Your task to perform on an android device: make emails show in primary in the gmail app Image 0: 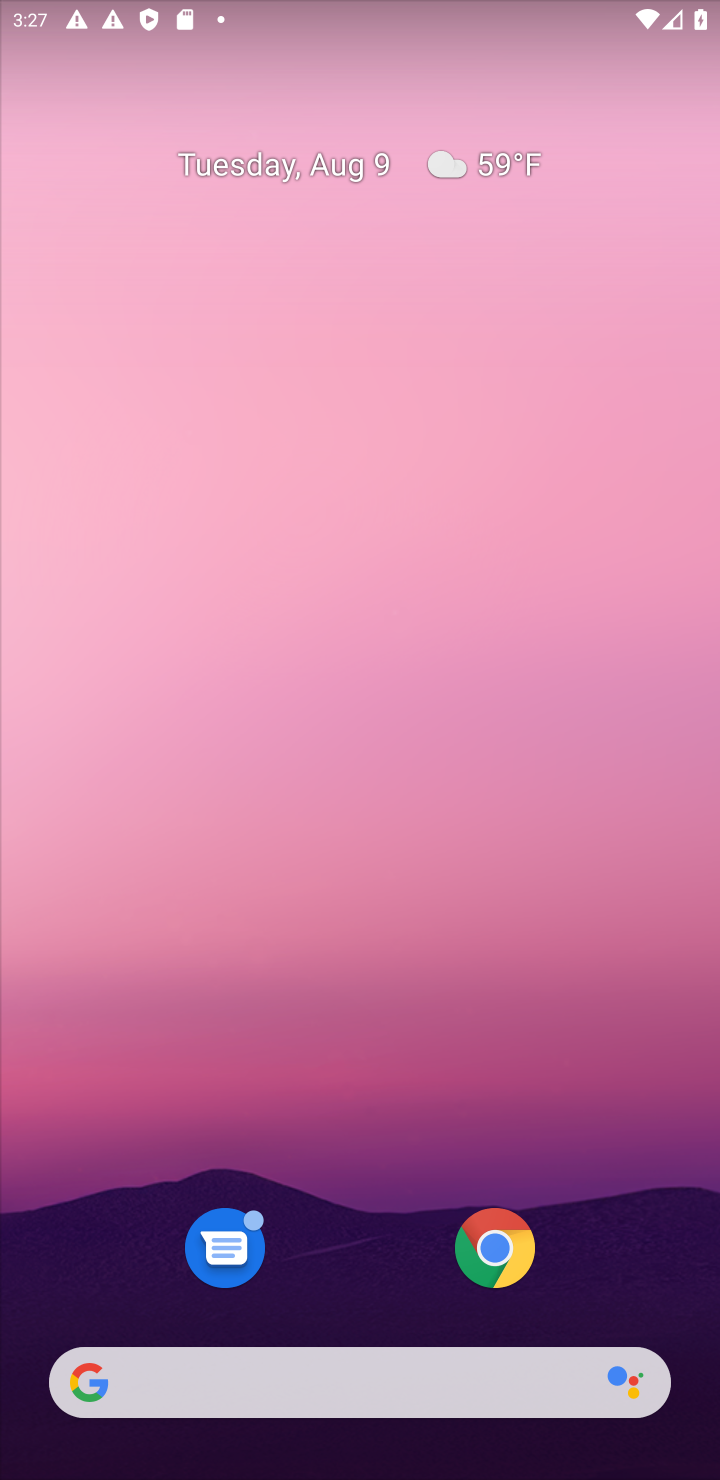
Step 0: press home button
Your task to perform on an android device: make emails show in primary in the gmail app Image 1: 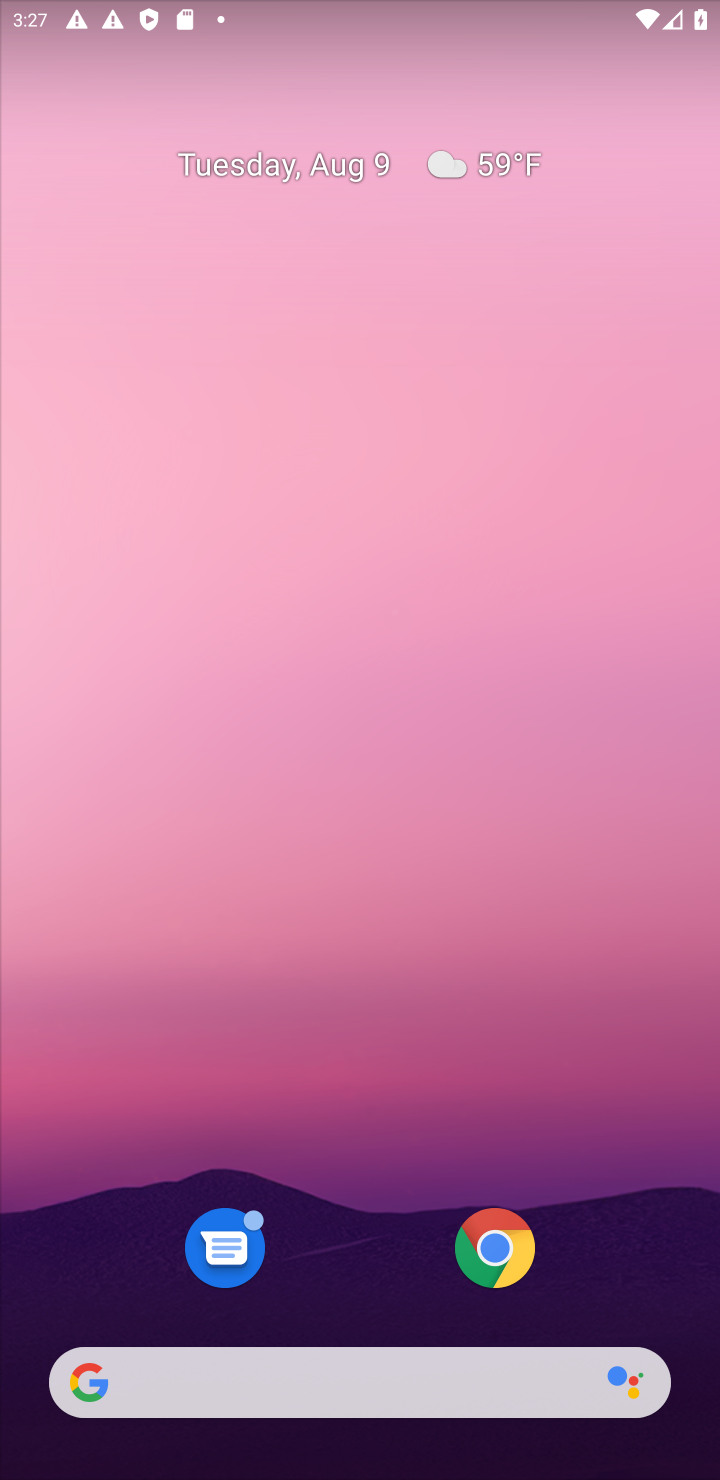
Step 1: drag from (368, 1184) to (209, 399)
Your task to perform on an android device: make emails show in primary in the gmail app Image 2: 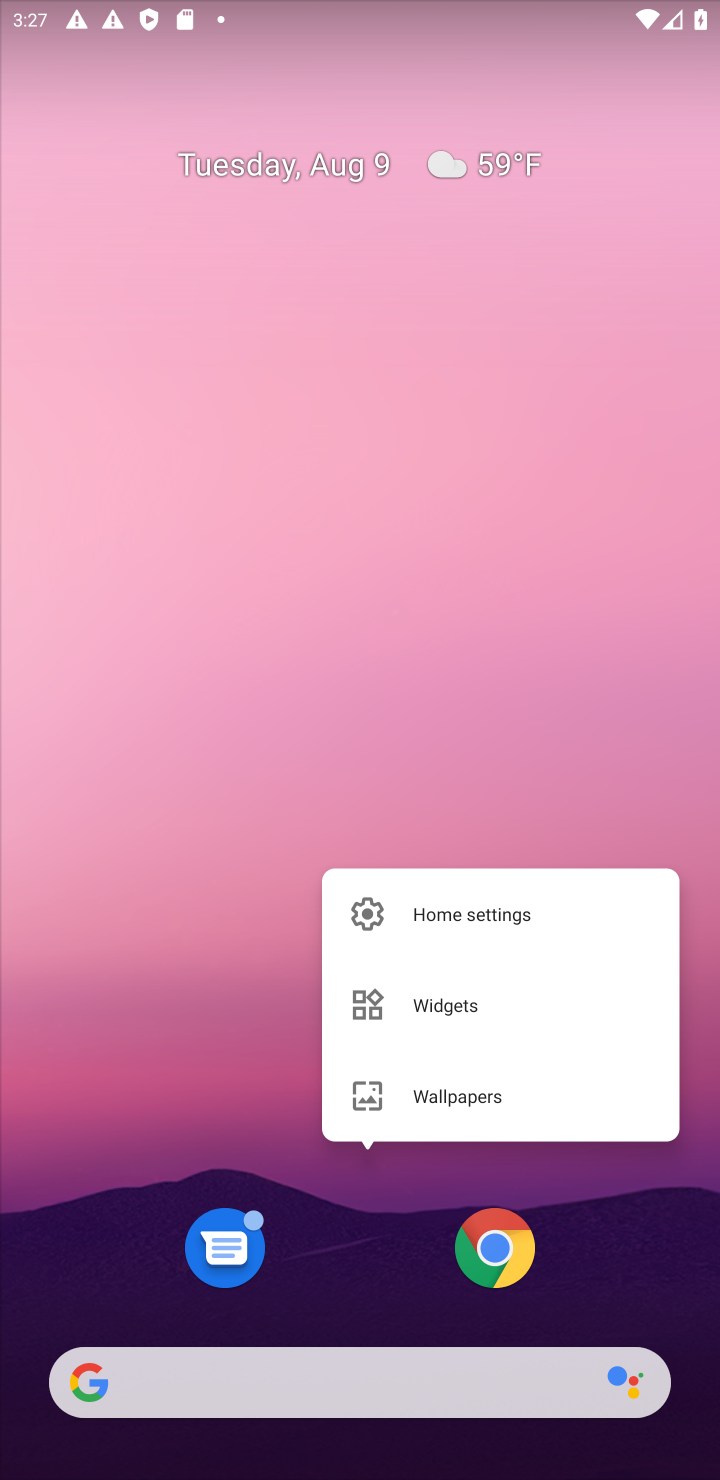
Step 2: click (306, 784)
Your task to perform on an android device: make emails show in primary in the gmail app Image 3: 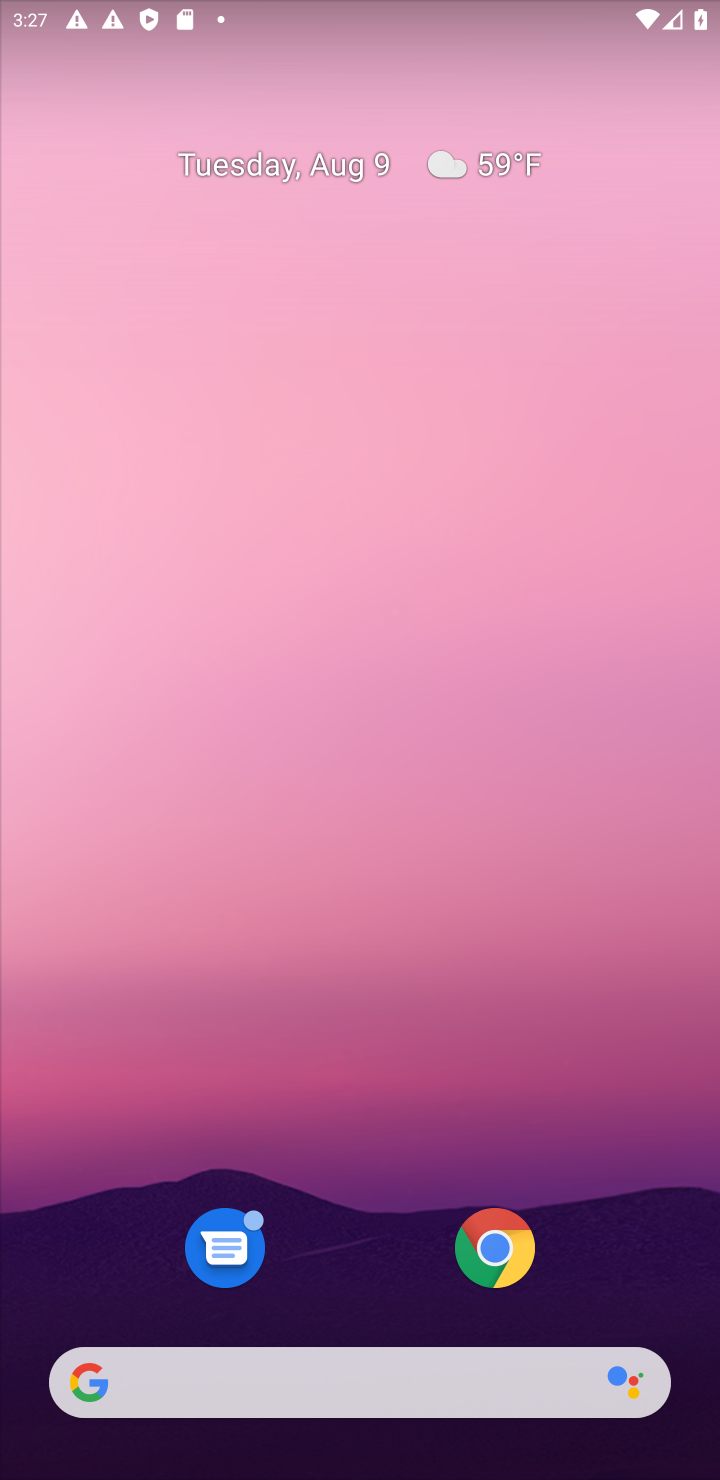
Step 3: drag from (319, 1098) to (155, 162)
Your task to perform on an android device: make emails show in primary in the gmail app Image 4: 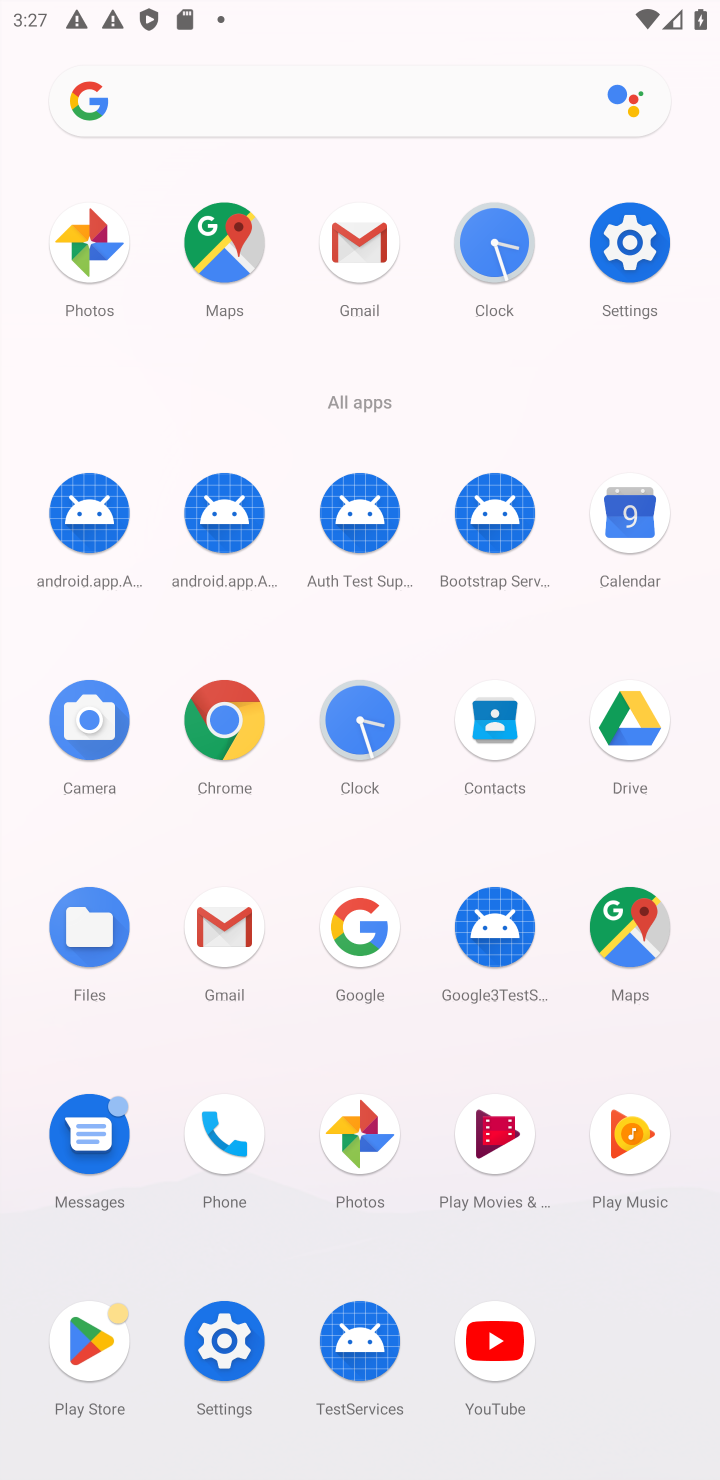
Step 4: click (218, 935)
Your task to perform on an android device: make emails show in primary in the gmail app Image 5: 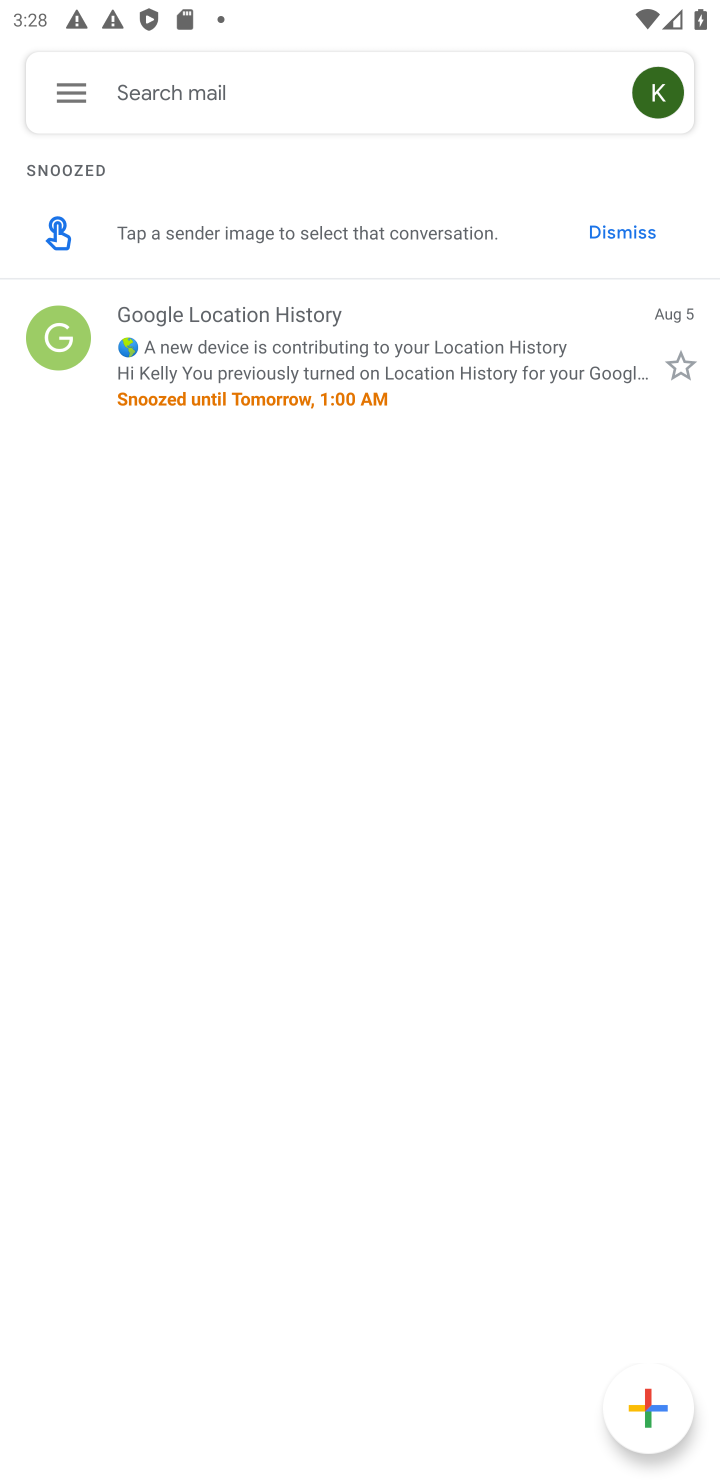
Step 5: click (85, 95)
Your task to perform on an android device: make emails show in primary in the gmail app Image 6: 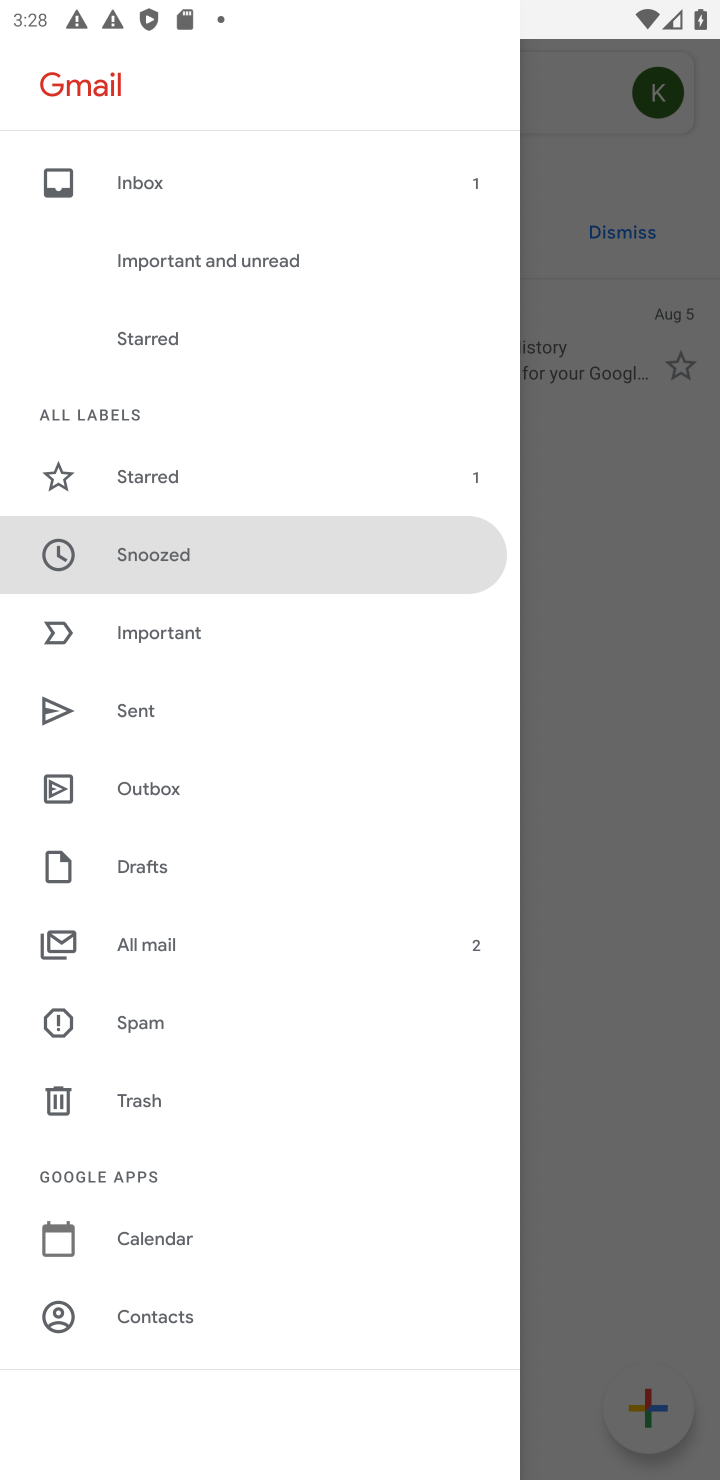
Step 6: drag from (256, 1262) to (297, 537)
Your task to perform on an android device: make emails show in primary in the gmail app Image 7: 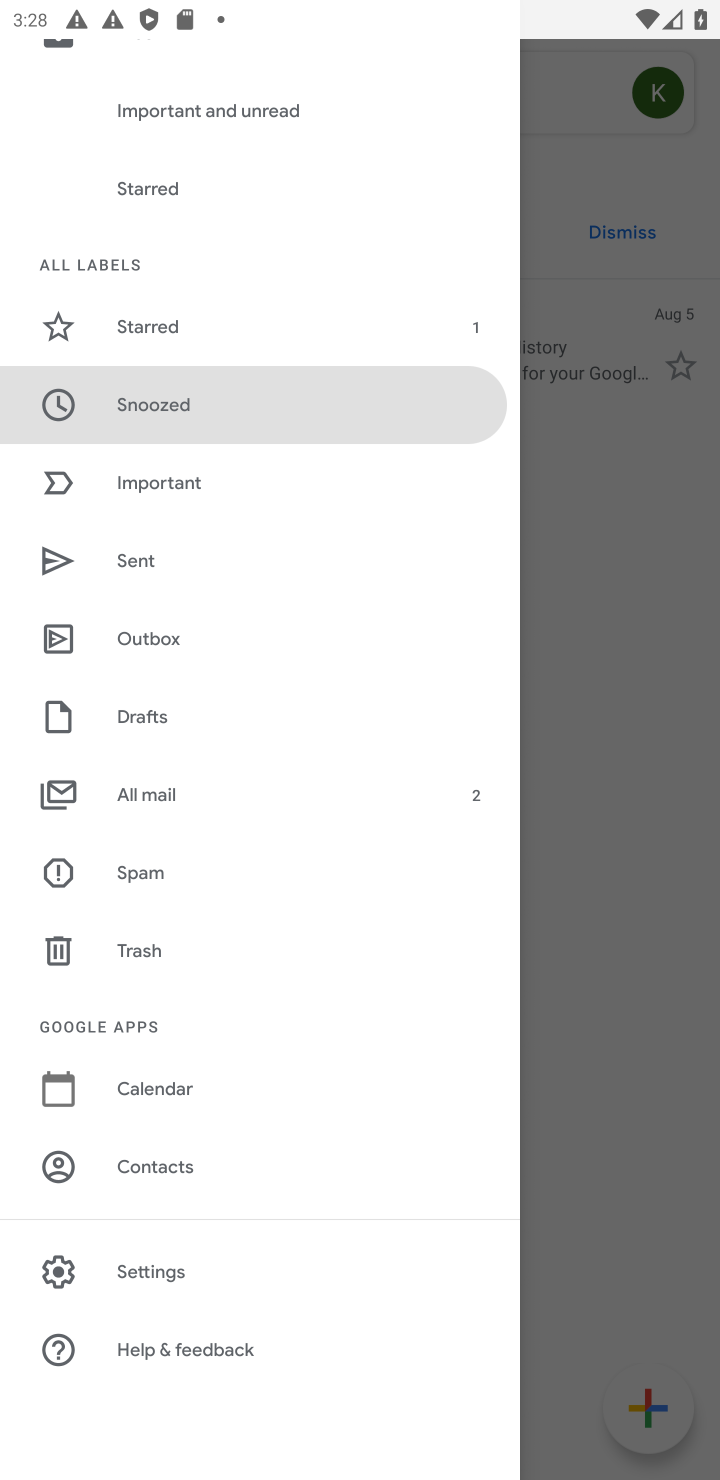
Step 7: click (156, 1269)
Your task to perform on an android device: make emails show in primary in the gmail app Image 8: 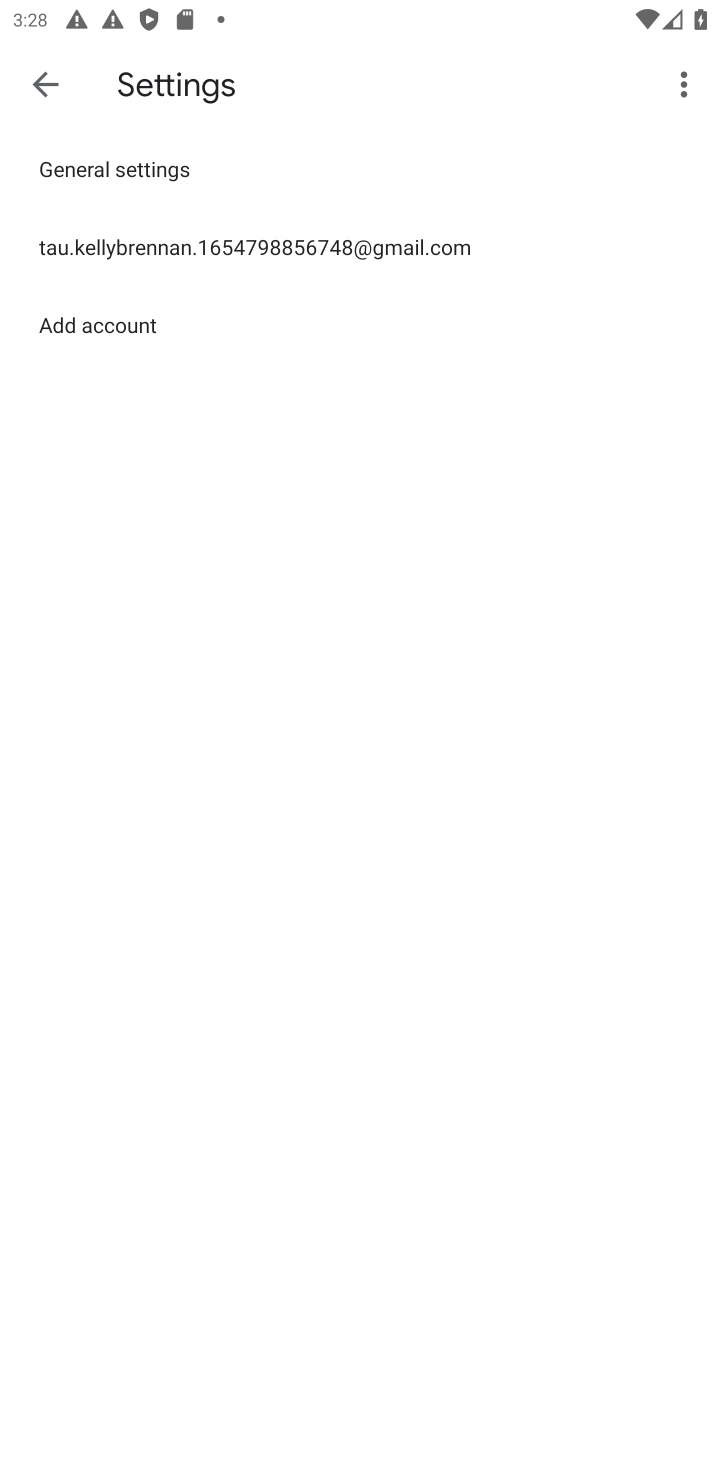
Step 8: click (279, 236)
Your task to perform on an android device: make emails show in primary in the gmail app Image 9: 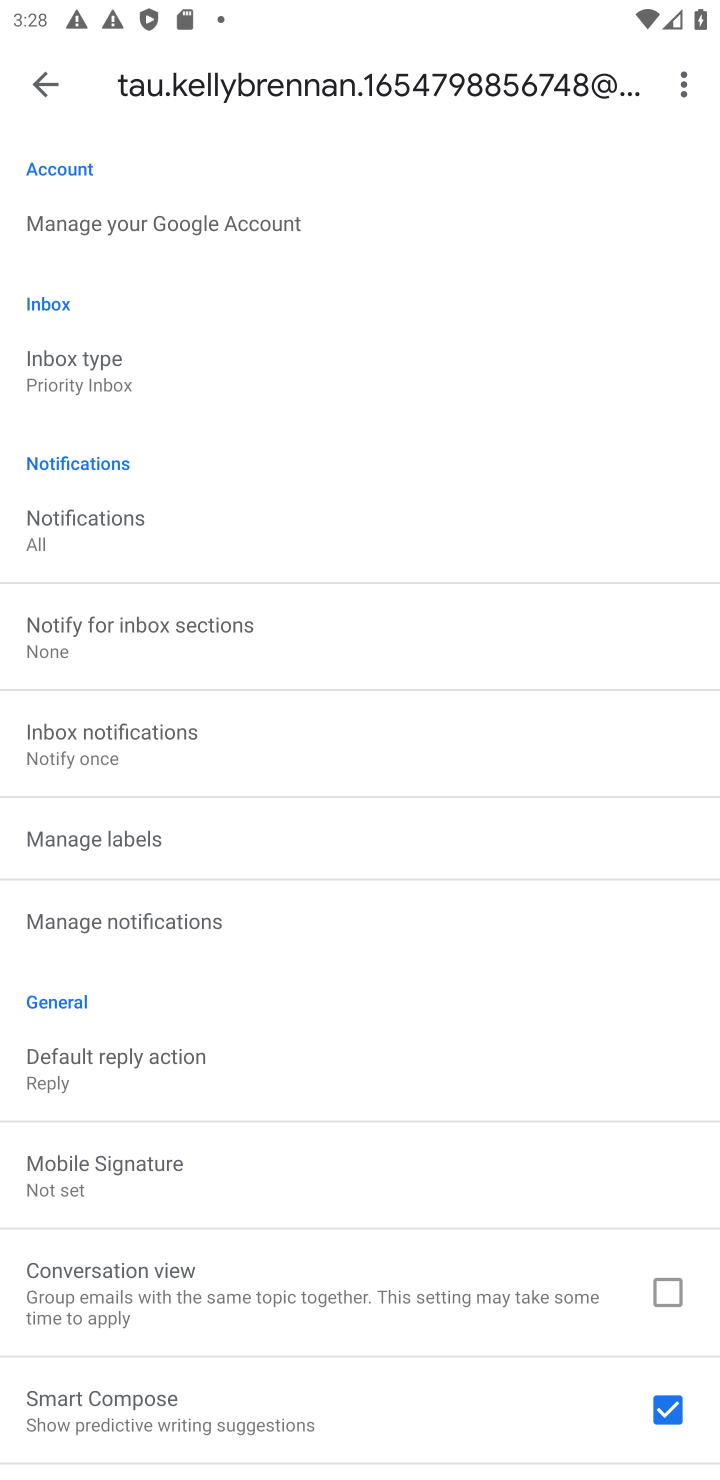
Step 9: click (101, 370)
Your task to perform on an android device: make emails show in primary in the gmail app Image 10: 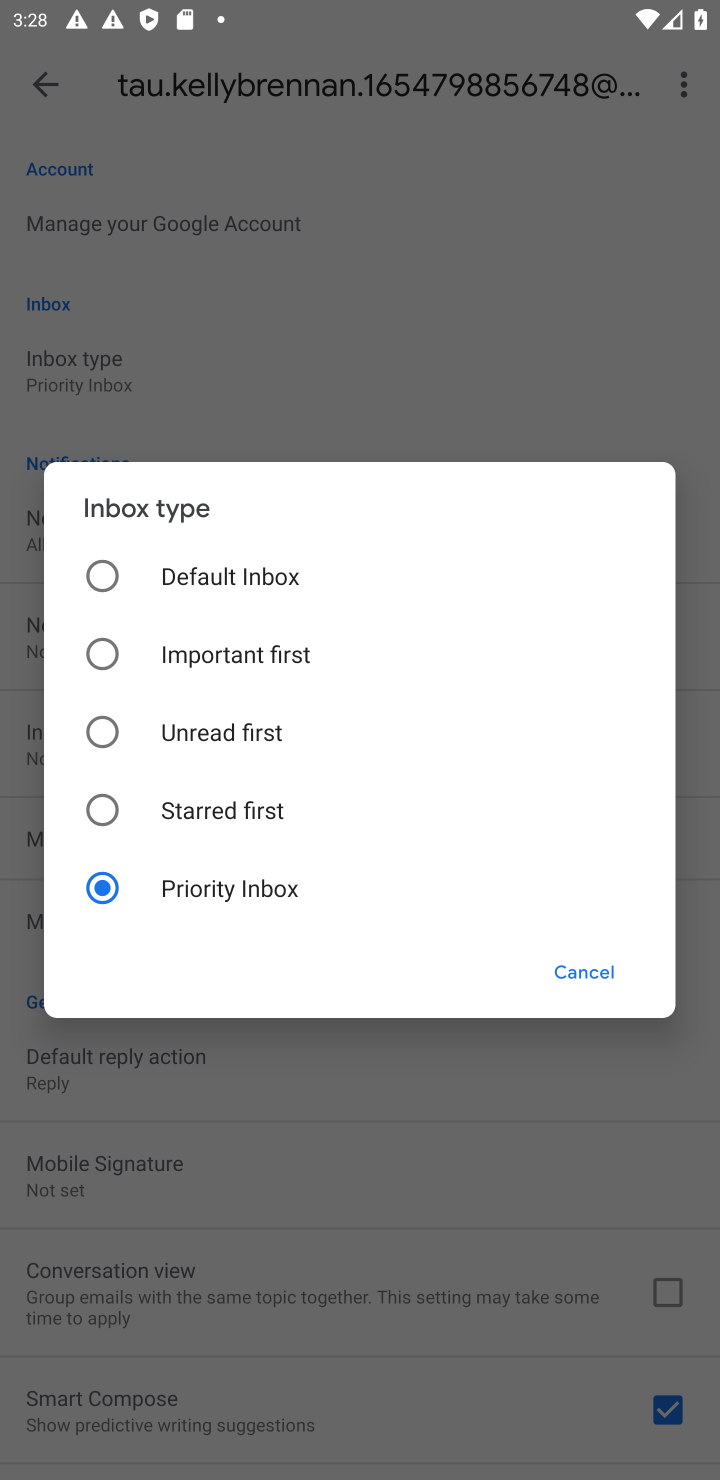
Step 10: click (183, 559)
Your task to perform on an android device: make emails show in primary in the gmail app Image 11: 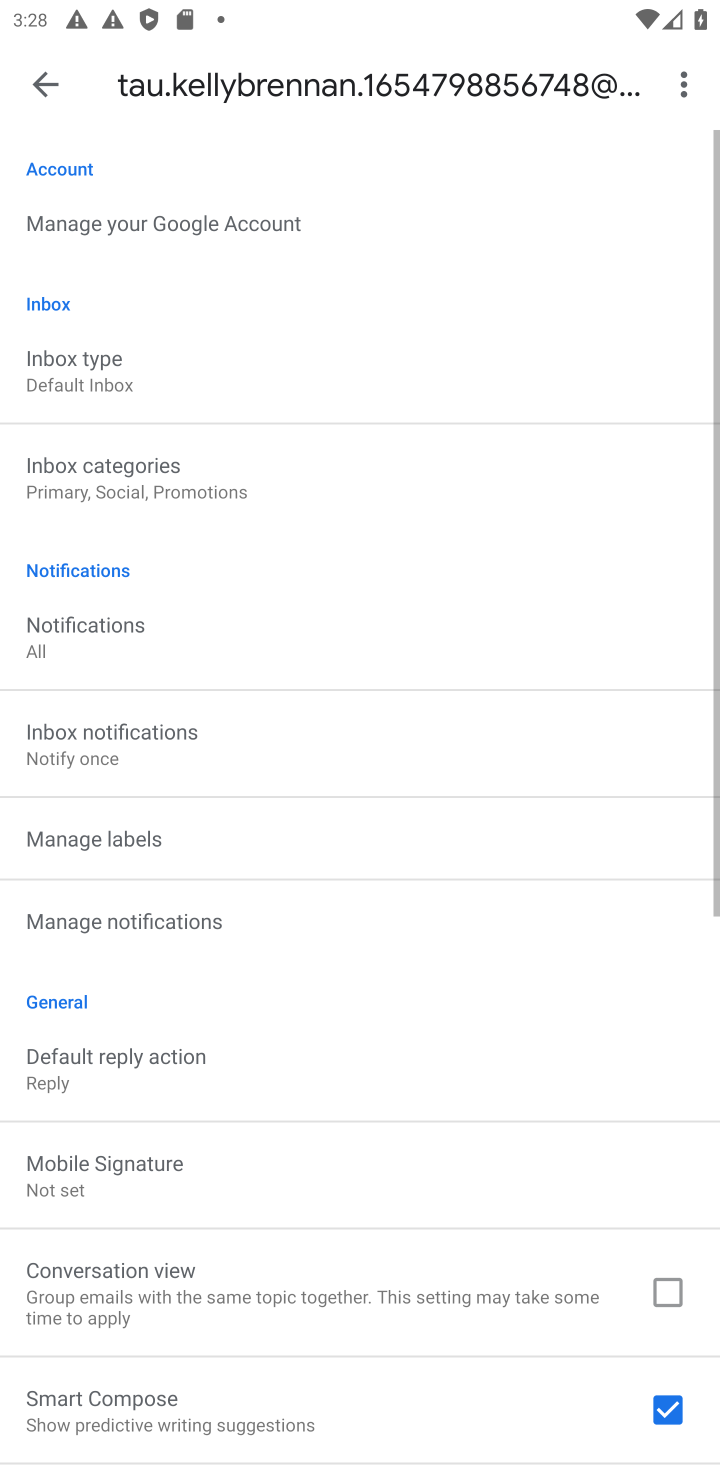
Step 11: click (192, 502)
Your task to perform on an android device: make emails show in primary in the gmail app Image 12: 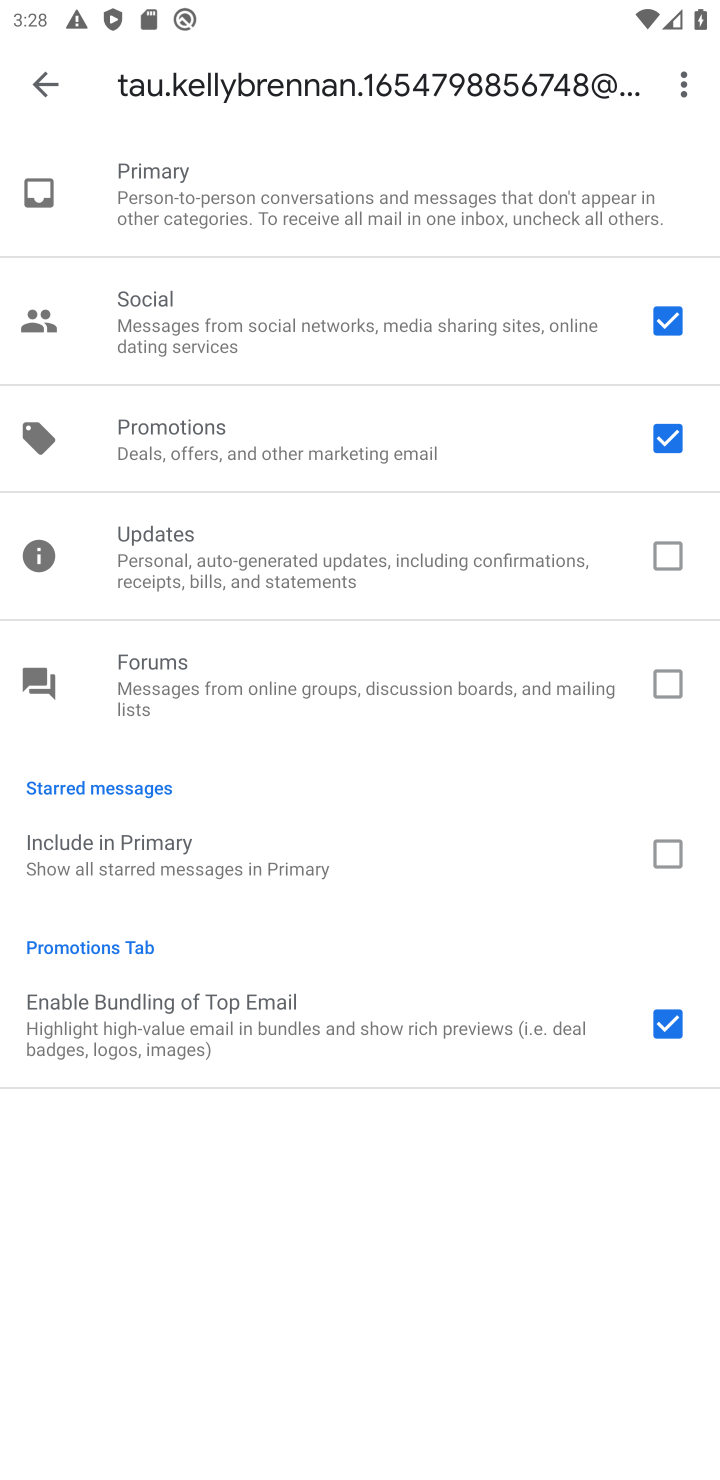
Step 12: task complete